Your task to perform on an android device: turn on improve location accuracy Image 0: 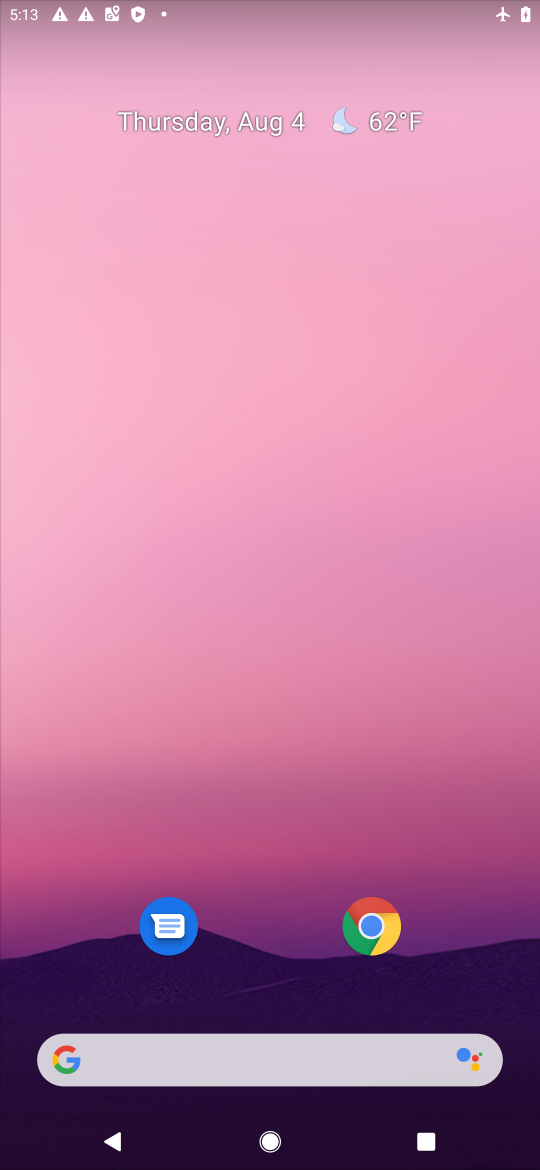
Step 0: drag from (287, 1004) to (361, 366)
Your task to perform on an android device: turn on improve location accuracy Image 1: 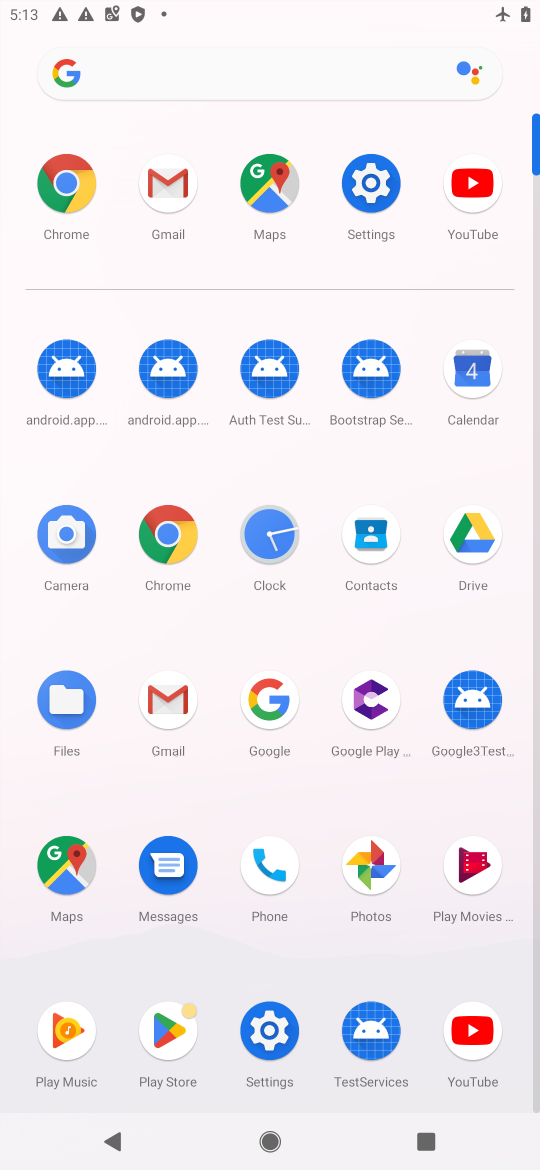
Step 1: click (357, 194)
Your task to perform on an android device: turn on improve location accuracy Image 2: 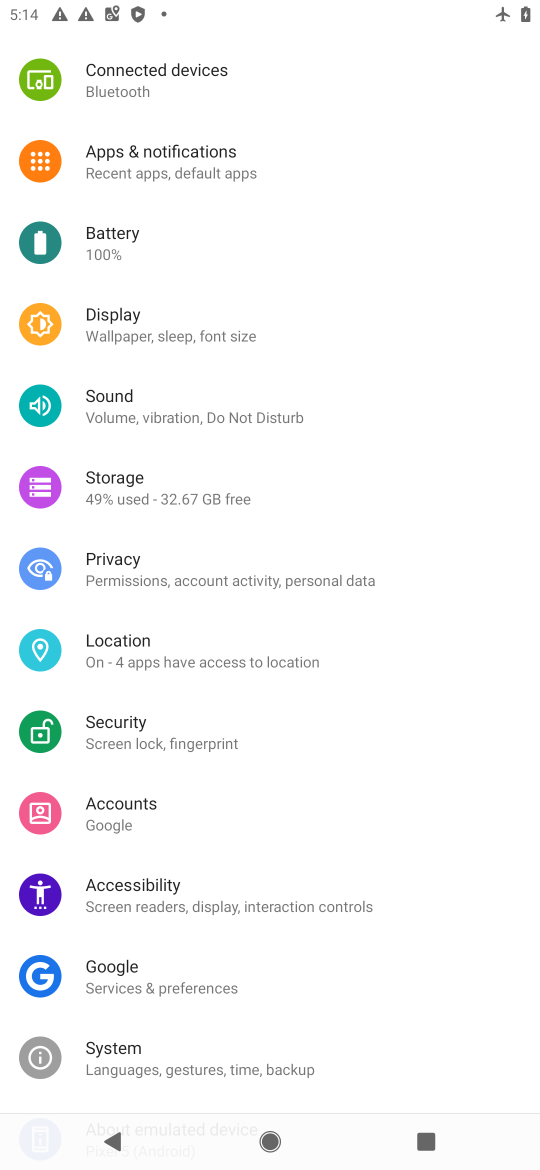
Step 2: click (115, 655)
Your task to perform on an android device: turn on improve location accuracy Image 3: 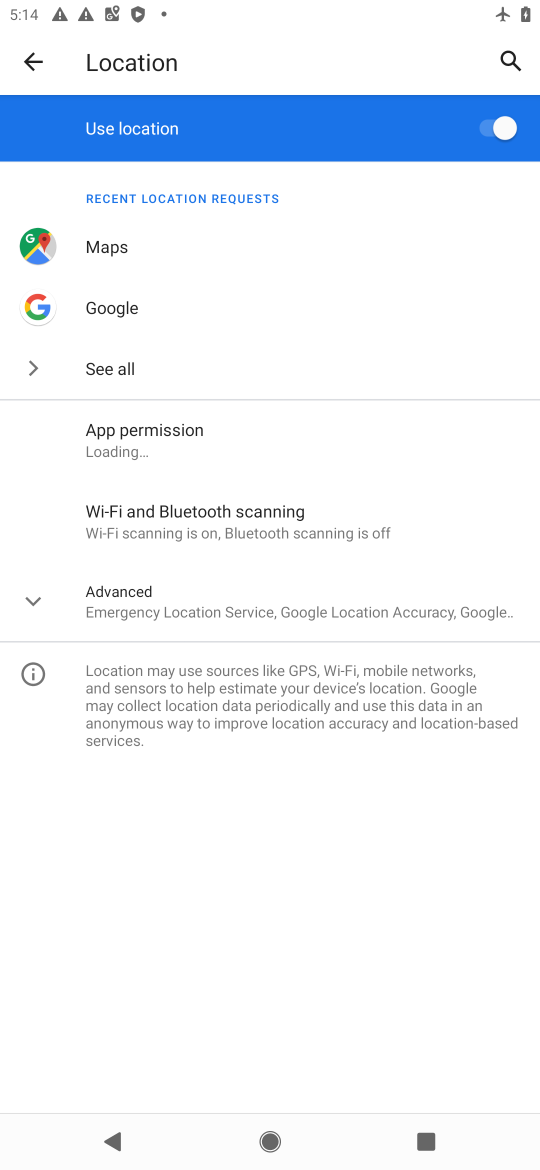
Step 3: click (145, 611)
Your task to perform on an android device: turn on improve location accuracy Image 4: 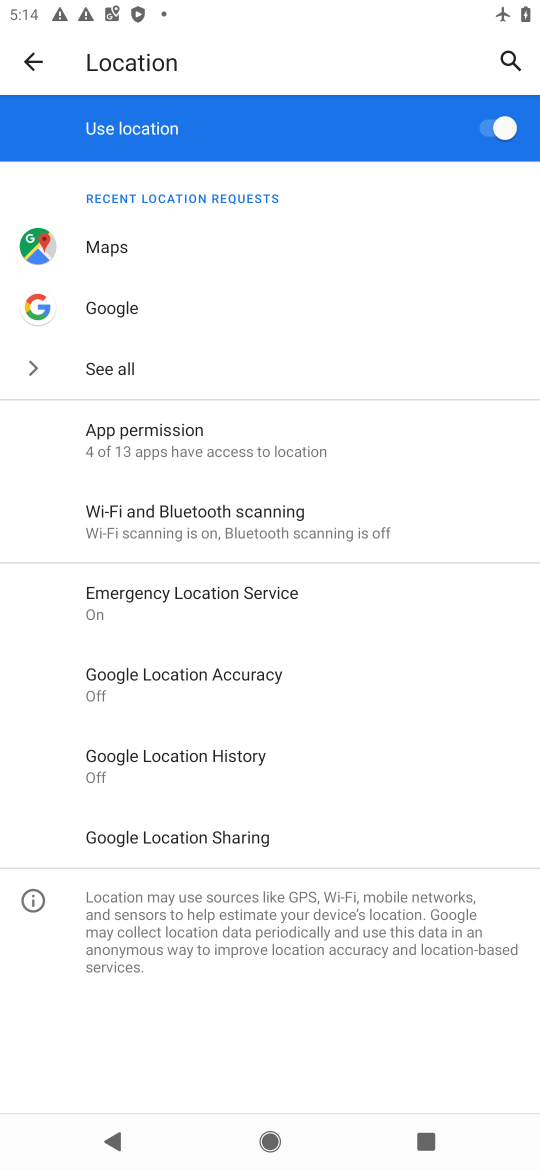
Step 4: click (223, 683)
Your task to perform on an android device: turn on improve location accuracy Image 5: 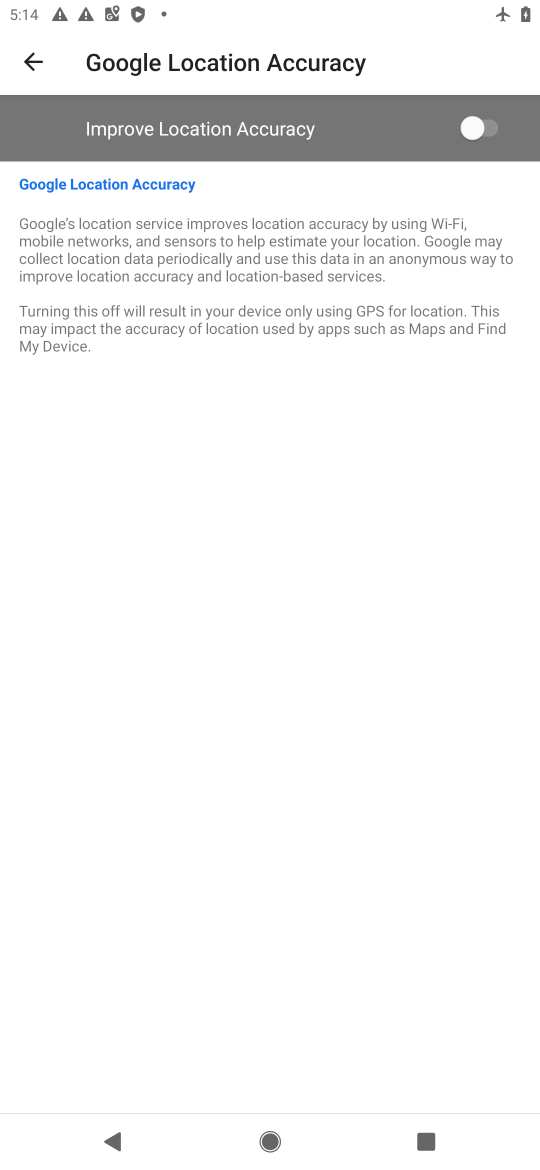
Step 5: click (474, 132)
Your task to perform on an android device: turn on improve location accuracy Image 6: 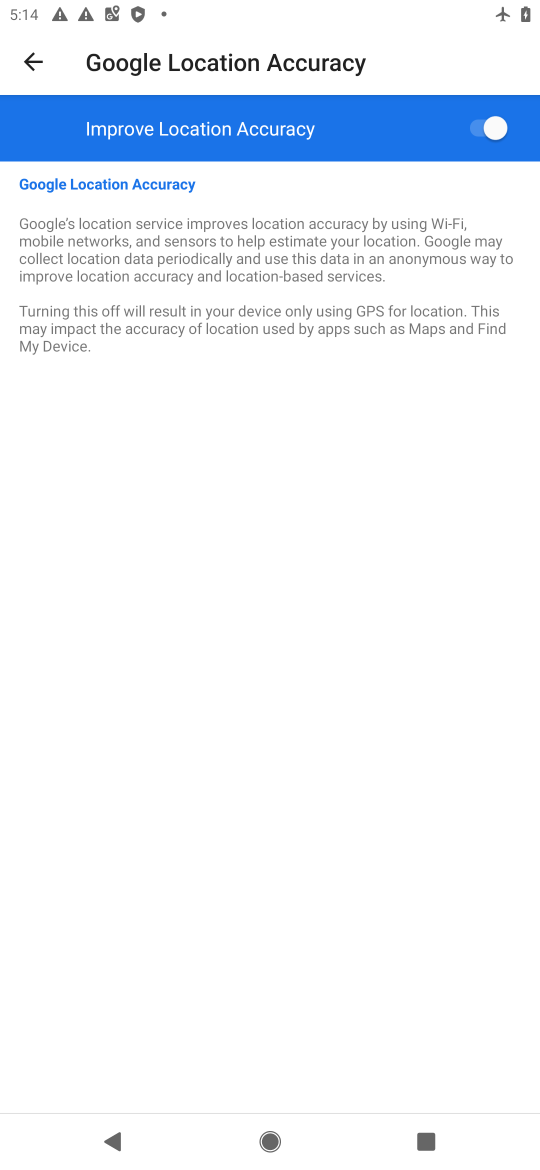
Step 6: task complete